Your task to perform on an android device: Open the Play Movies app and select the watchlist tab. Image 0: 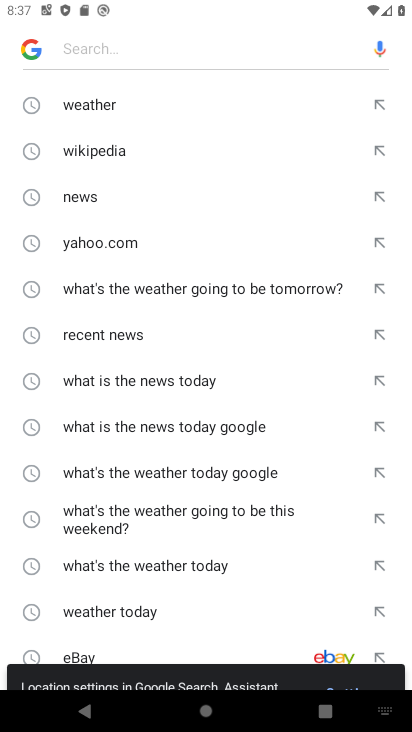
Step 0: press home button
Your task to perform on an android device: Open the Play Movies app and select the watchlist tab. Image 1: 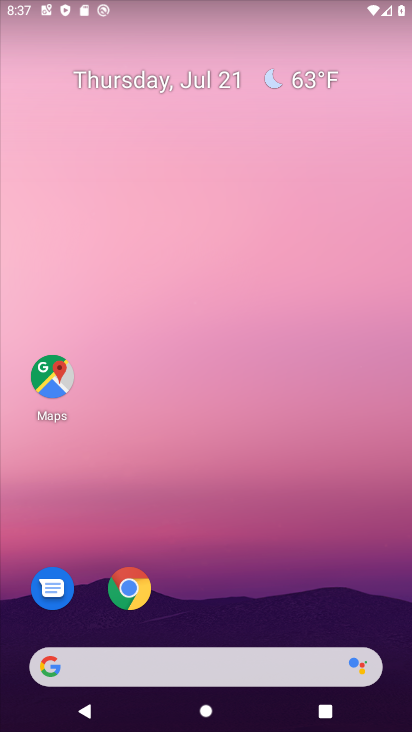
Step 1: drag from (204, 581) to (204, 25)
Your task to perform on an android device: Open the Play Movies app and select the watchlist tab. Image 2: 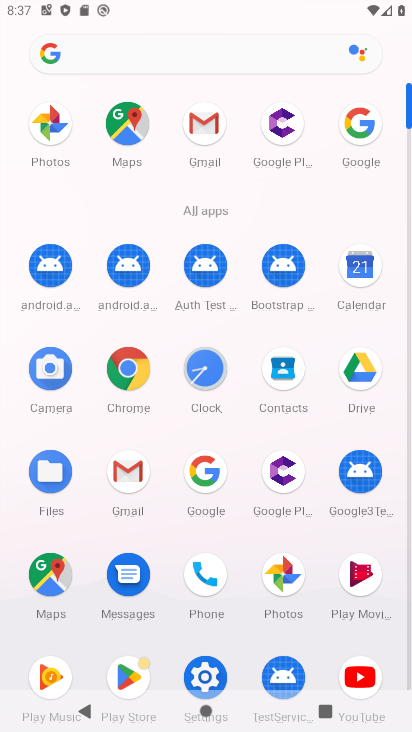
Step 2: click (353, 571)
Your task to perform on an android device: Open the Play Movies app and select the watchlist tab. Image 3: 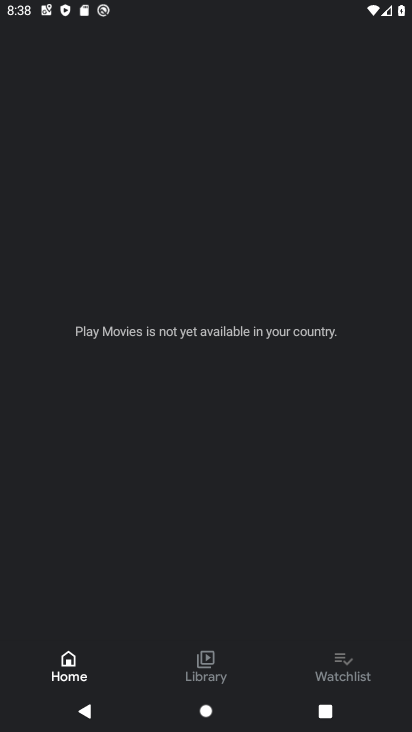
Step 3: click (334, 666)
Your task to perform on an android device: Open the Play Movies app and select the watchlist tab. Image 4: 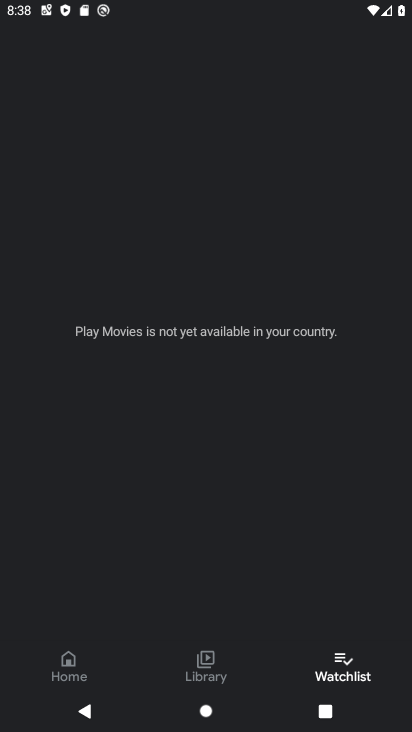
Step 4: task complete